Your task to perform on an android device: Open Amazon Image 0: 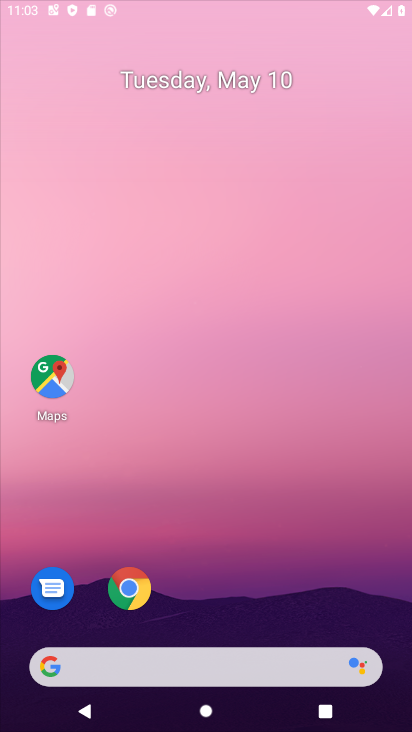
Step 0: drag from (280, 617) to (104, 188)
Your task to perform on an android device: Open Amazon Image 1: 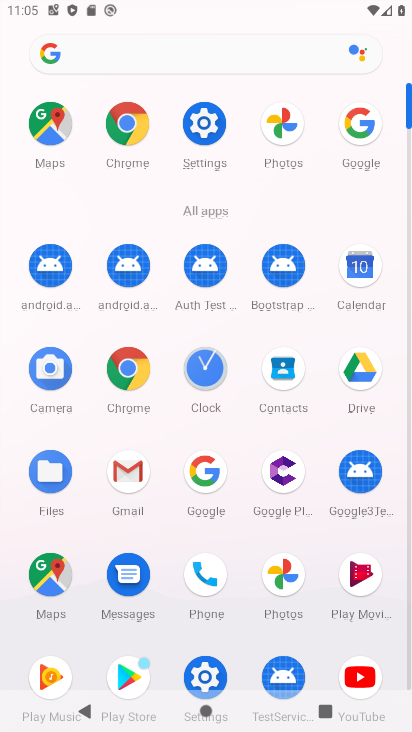
Step 1: click (116, 129)
Your task to perform on an android device: Open Amazon Image 2: 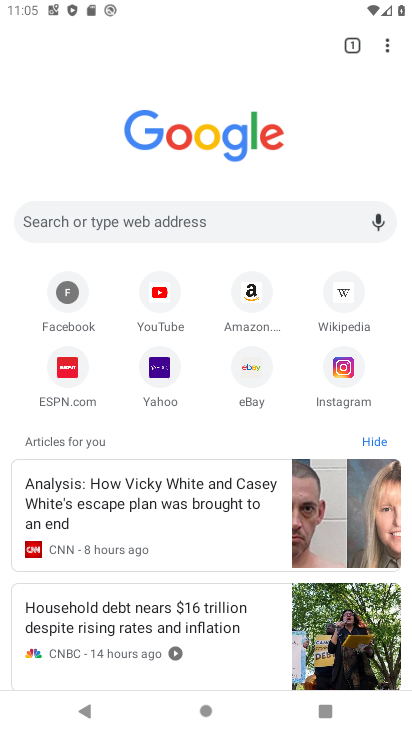
Step 2: click (237, 295)
Your task to perform on an android device: Open Amazon Image 3: 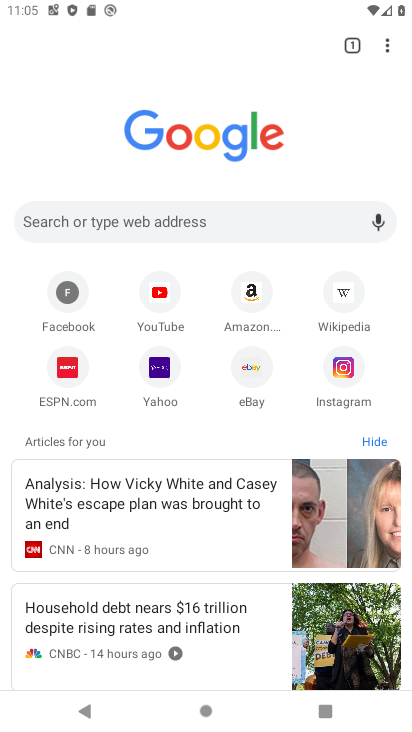
Step 3: click (243, 296)
Your task to perform on an android device: Open Amazon Image 4: 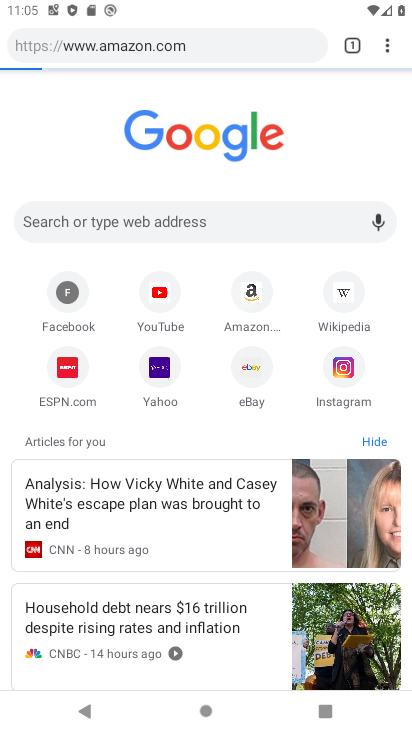
Step 4: click (244, 294)
Your task to perform on an android device: Open Amazon Image 5: 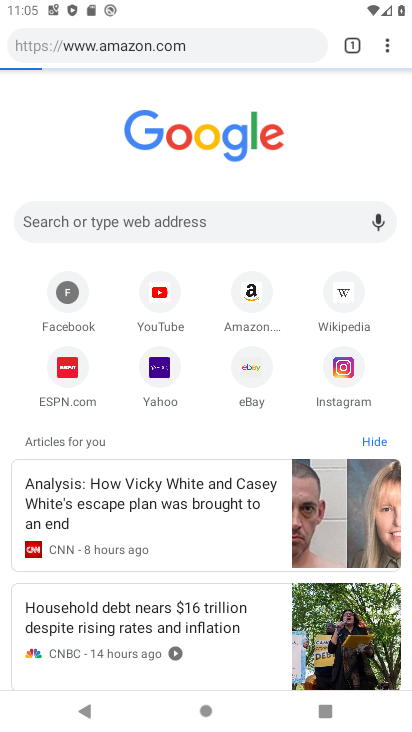
Step 5: click (243, 291)
Your task to perform on an android device: Open Amazon Image 6: 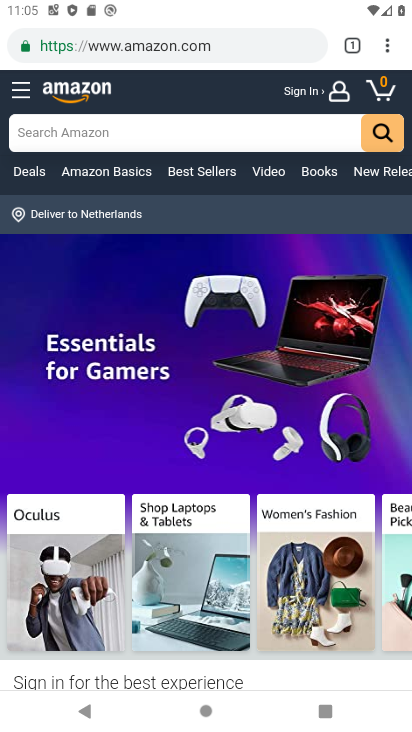
Step 6: press back button
Your task to perform on an android device: Open Amazon Image 7: 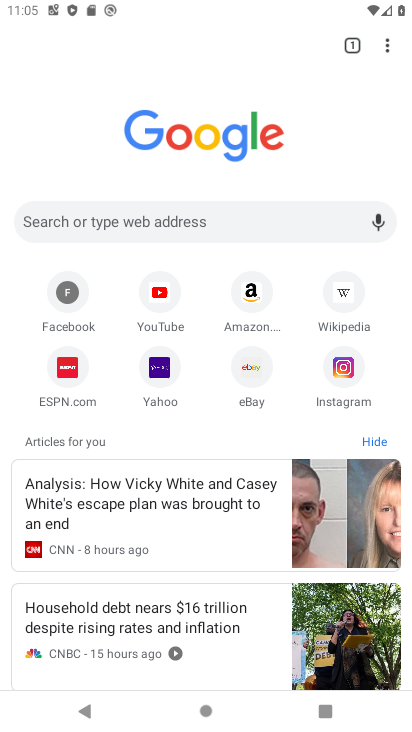
Step 7: click (241, 298)
Your task to perform on an android device: Open Amazon Image 8: 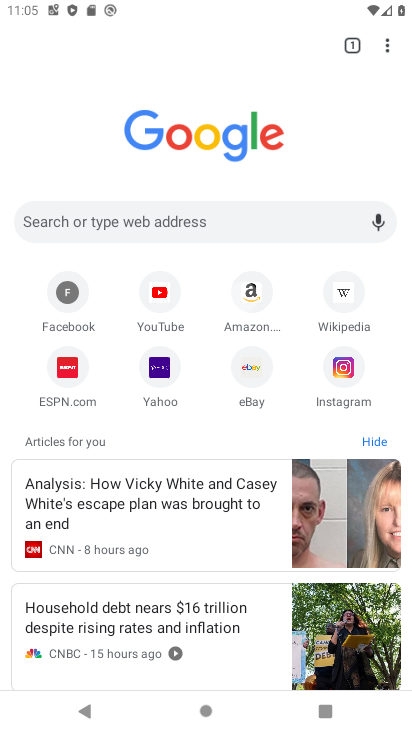
Step 8: click (242, 298)
Your task to perform on an android device: Open Amazon Image 9: 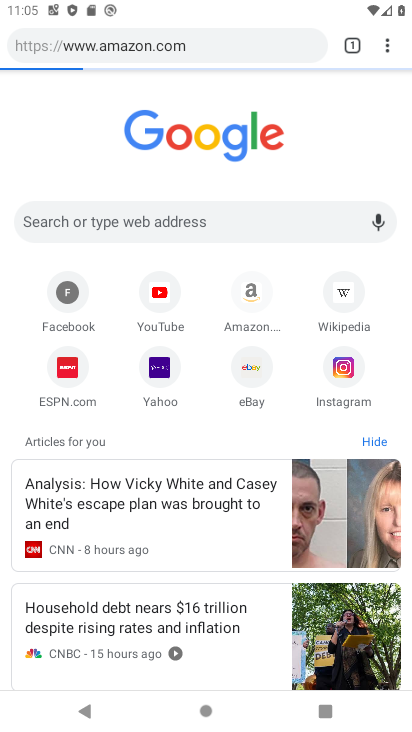
Step 9: click (242, 298)
Your task to perform on an android device: Open Amazon Image 10: 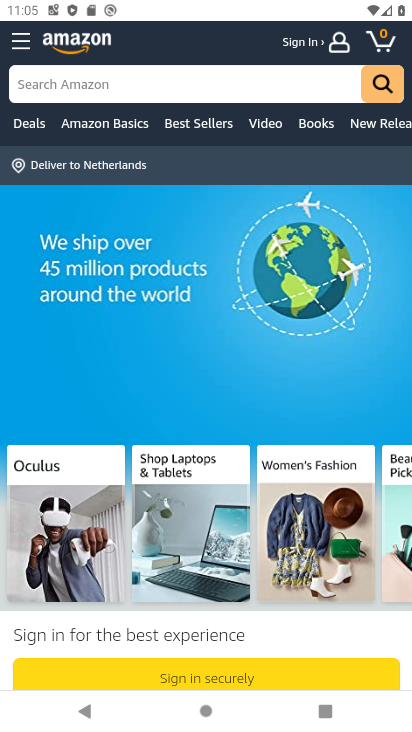
Step 10: task complete